Your task to perform on an android device: add a contact in the contacts app Image 0: 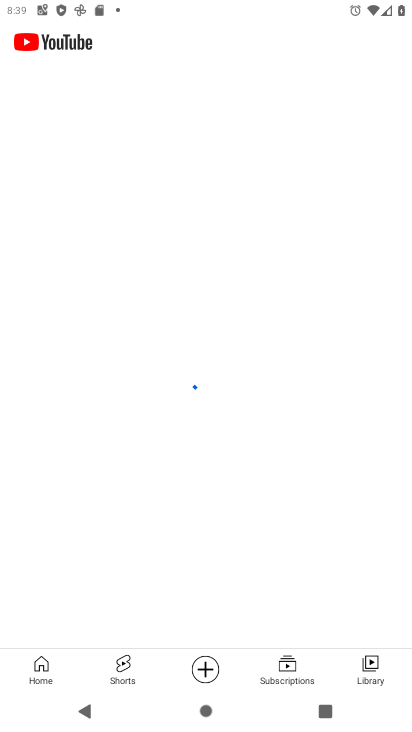
Step 0: drag from (376, 435) to (326, 10)
Your task to perform on an android device: add a contact in the contacts app Image 1: 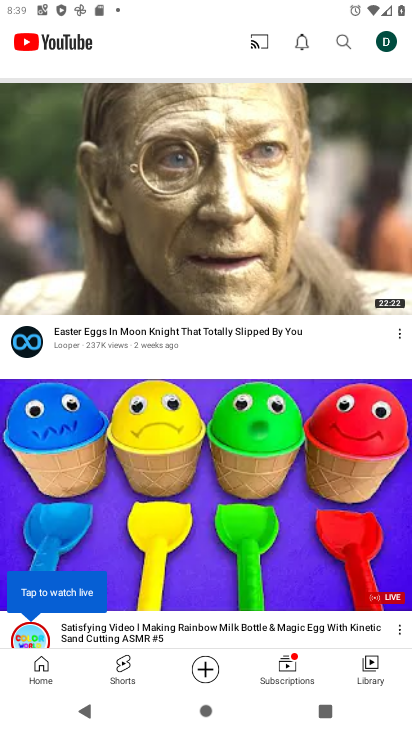
Step 1: press home button
Your task to perform on an android device: add a contact in the contacts app Image 2: 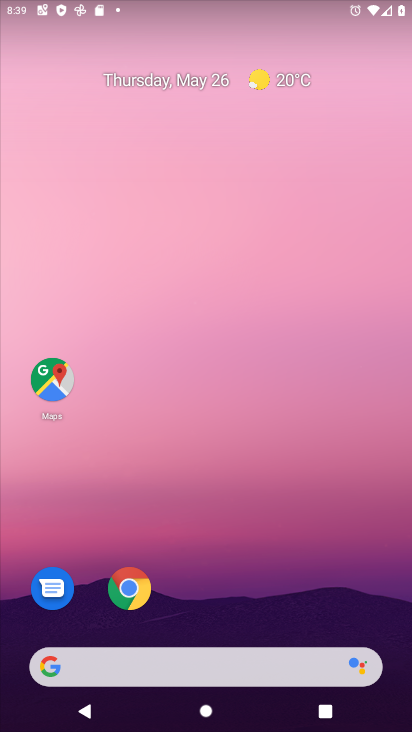
Step 2: drag from (337, 607) to (251, 8)
Your task to perform on an android device: add a contact in the contacts app Image 3: 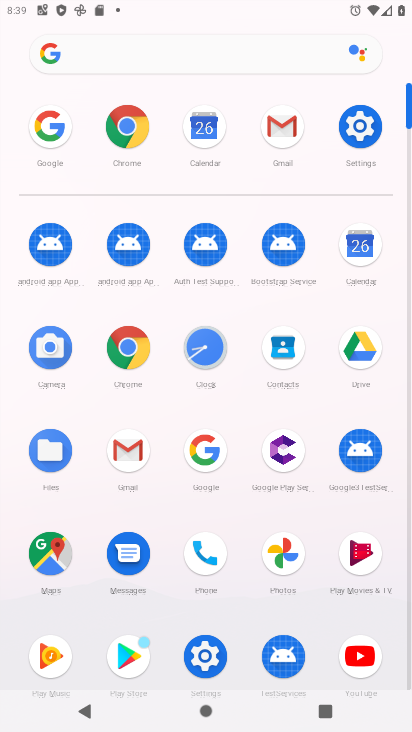
Step 3: click (287, 343)
Your task to perform on an android device: add a contact in the contacts app Image 4: 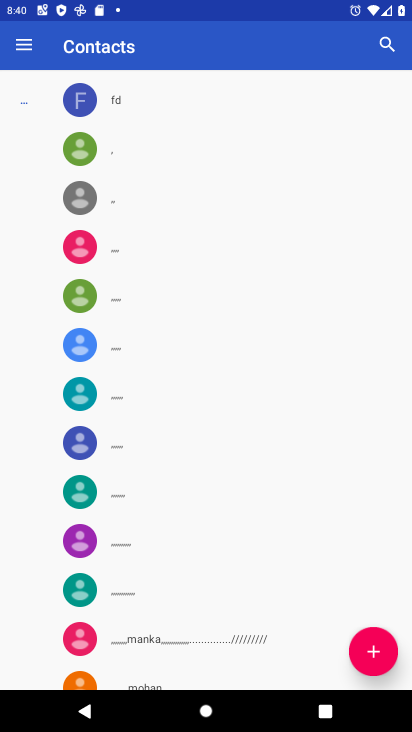
Step 4: click (367, 650)
Your task to perform on an android device: add a contact in the contacts app Image 5: 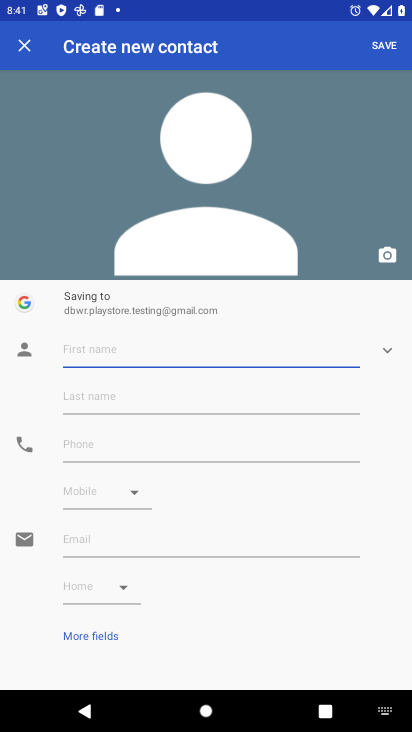
Step 5: type "eda"
Your task to perform on an android device: add a contact in the contacts app Image 6: 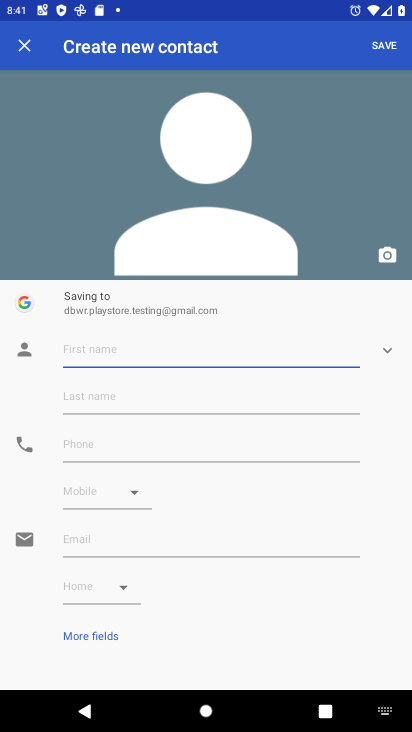
Step 6: click (383, 42)
Your task to perform on an android device: add a contact in the contacts app Image 7: 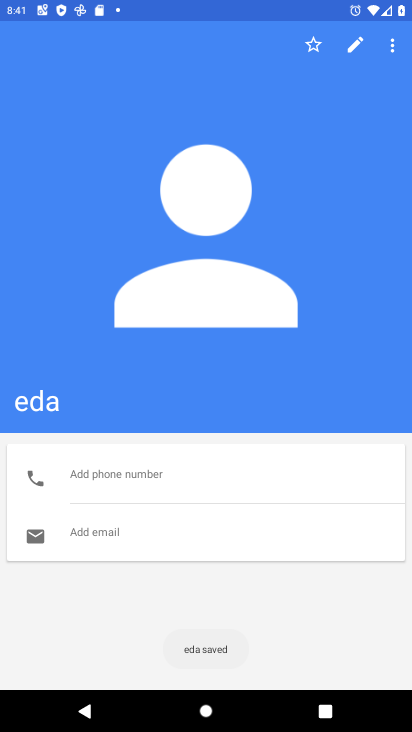
Step 7: task complete